Your task to perform on an android device: star an email in the gmail app Image 0: 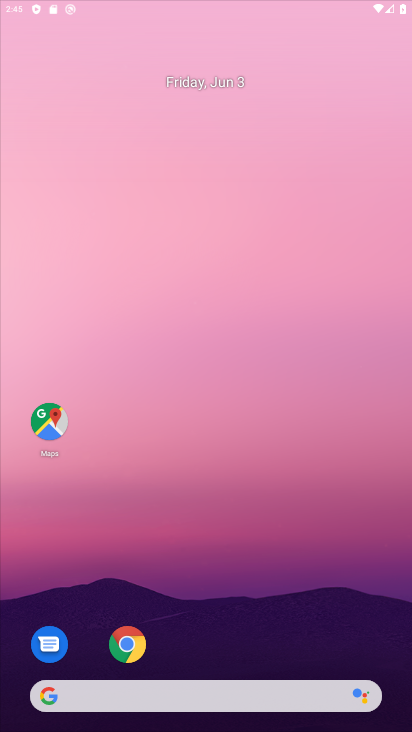
Step 0: press home button
Your task to perform on an android device: star an email in the gmail app Image 1: 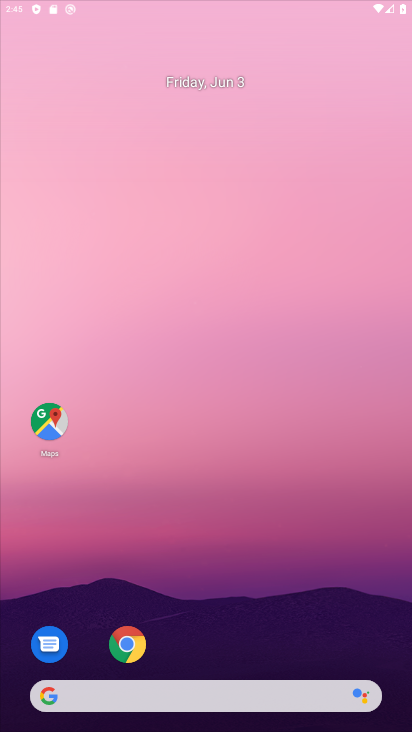
Step 1: click (181, 543)
Your task to perform on an android device: star an email in the gmail app Image 2: 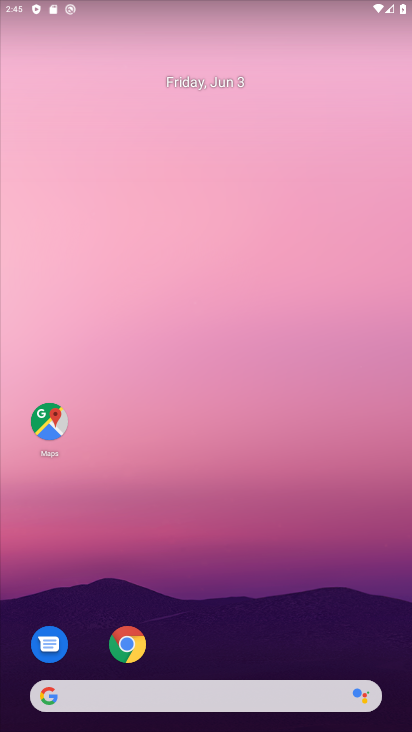
Step 2: drag from (388, 703) to (276, 326)
Your task to perform on an android device: star an email in the gmail app Image 3: 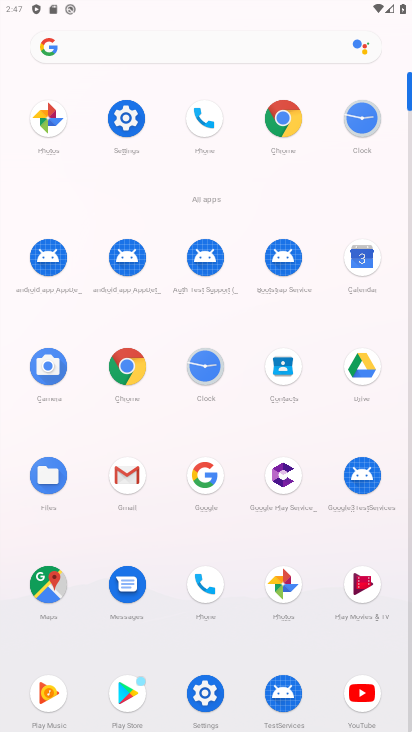
Step 3: click (116, 481)
Your task to perform on an android device: star an email in the gmail app Image 4: 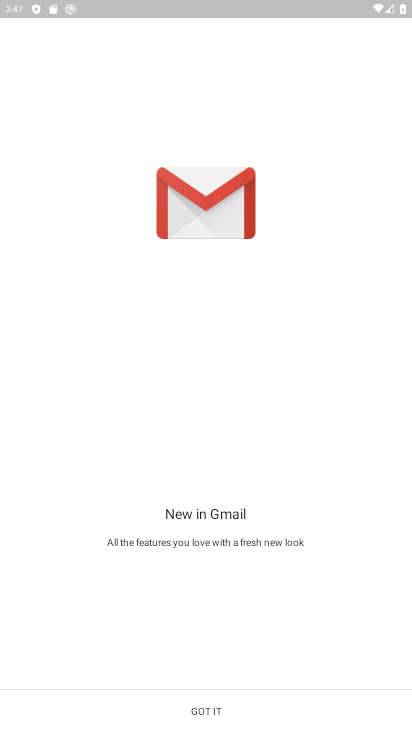
Step 4: click (91, 713)
Your task to perform on an android device: star an email in the gmail app Image 5: 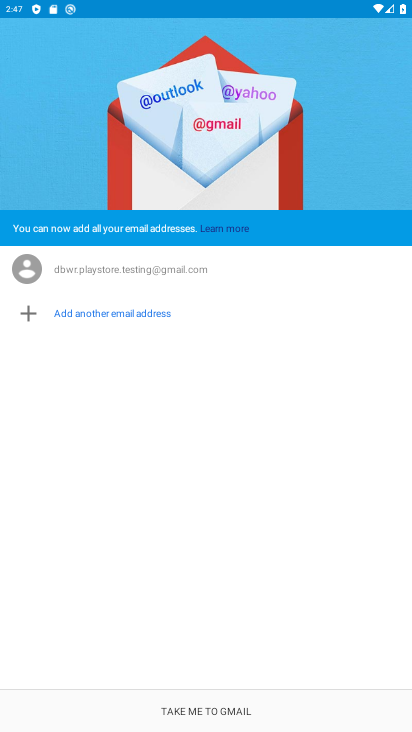
Step 5: click (77, 712)
Your task to perform on an android device: star an email in the gmail app Image 6: 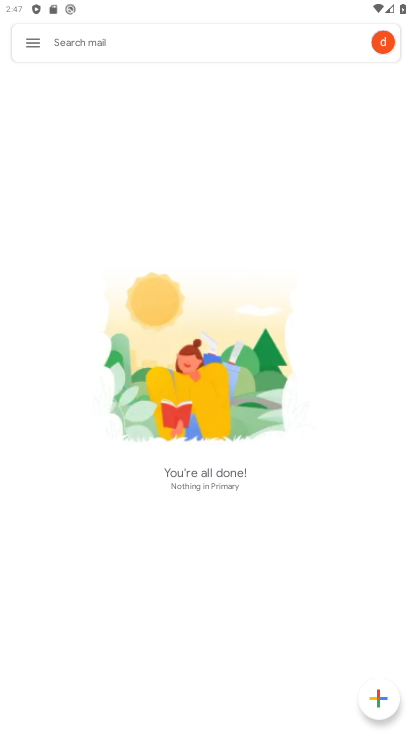
Step 6: task complete